Your task to perform on an android device: Go to sound settings Image 0: 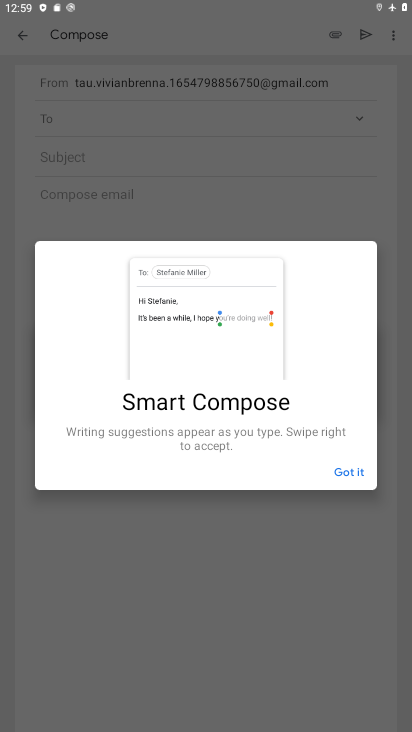
Step 0: press home button
Your task to perform on an android device: Go to sound settings Image 1: 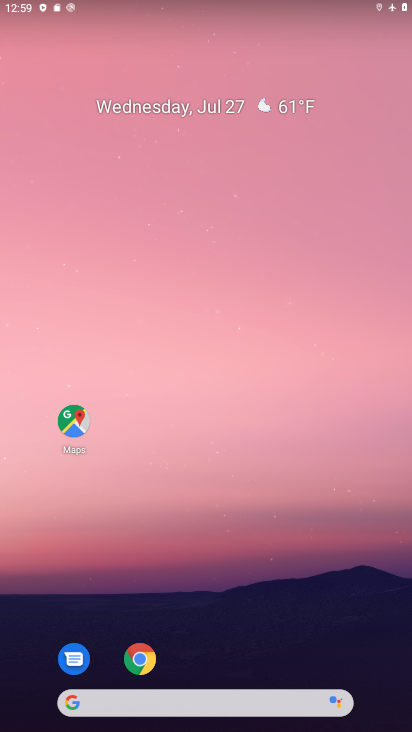
Step 1: drag from (210, 620) to (210, 256)
Your task to perform on an android device: Go to sound settings Image 2: 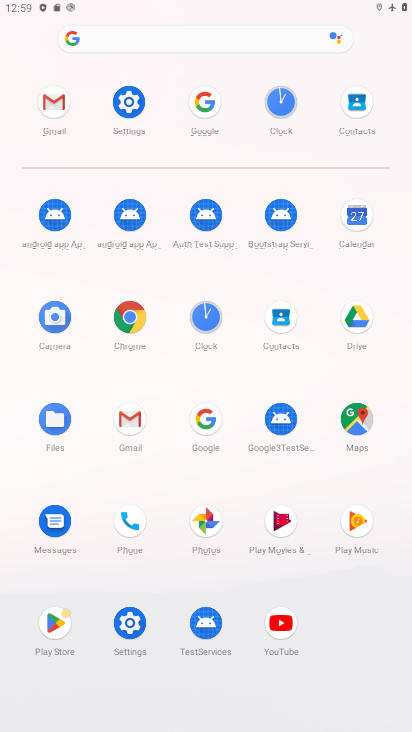
Step 2: click (139, 94)
Your task to perform on an android device: Go to sound settings Image 3: 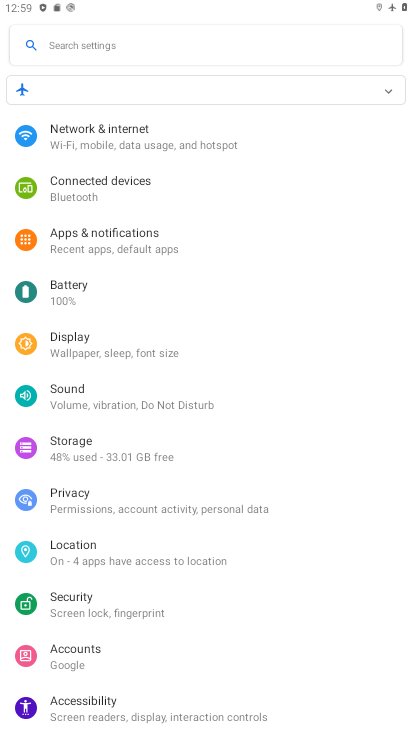
Step 3: click (131, 393)
Your task to perform on an android device: Go to sound settings Image 4: 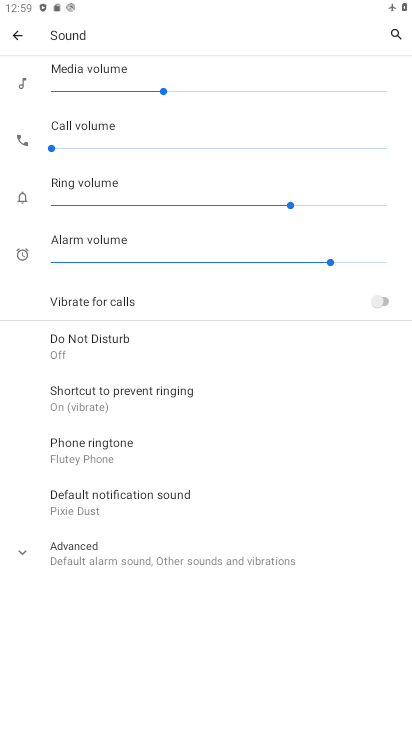
Step 4: task complete